Your task to perform on an android device: turn on javascript in the chrome app Image 0: 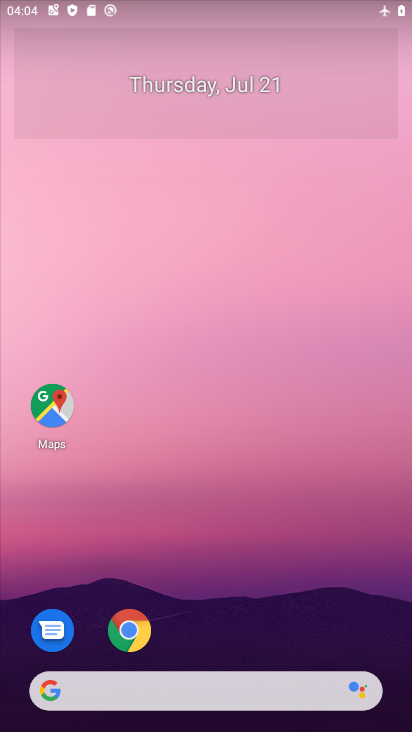
Step 0: click (127, 634)
Your task to perform on an android device: turn on javascript in the chrome app Image 1: 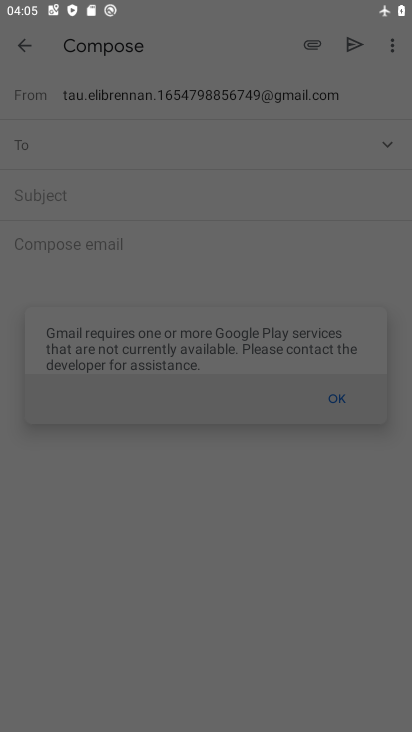
Step 1: press home button
Your task to perform on an android device: turn on javascript in the chrome app Image 2: 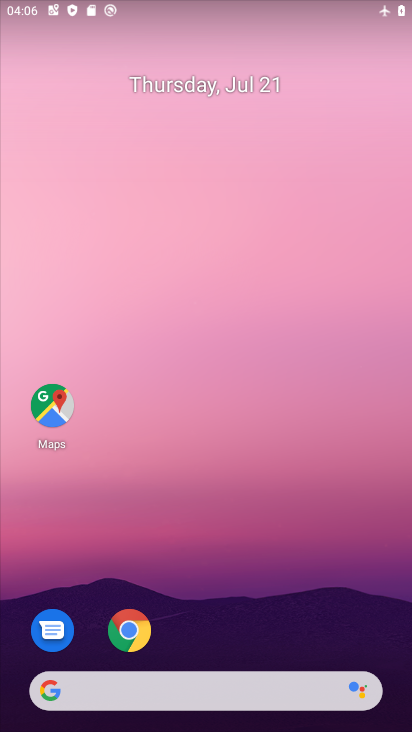
Step 2: click (124, 623)
Your task to perform on an android device: turn on javascript in the chrome app Image 3: 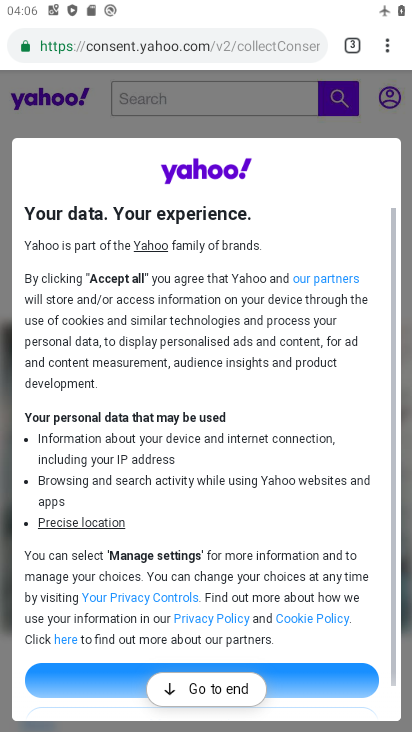
Step 3: click (392, 62)
Your task to perform on an android device: turn on javascript in the chrome app Image 4: 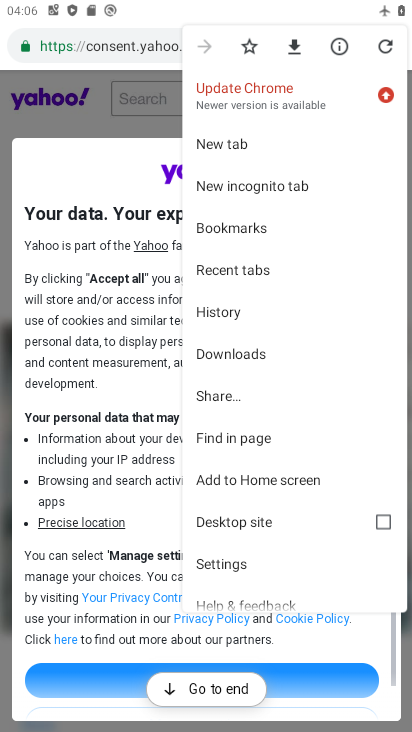
Step 4: click (226, 558)
Your task to perform on an android device: turn on javascript in the chrome app Image 5: 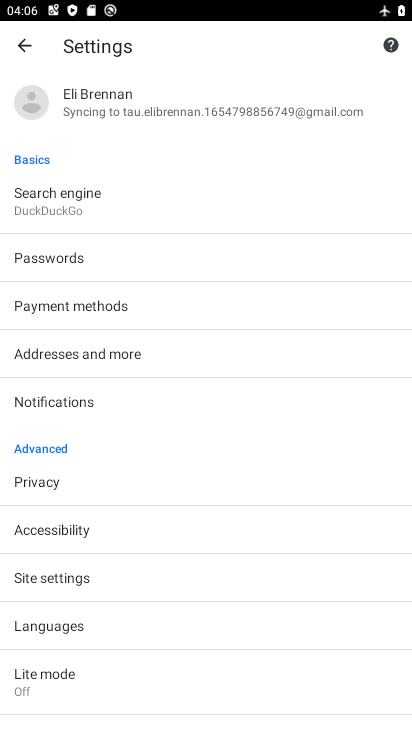
Step 5: click (65, 578)
Your task to perform on an android device: turn on javascript in the chrome app Image 6: 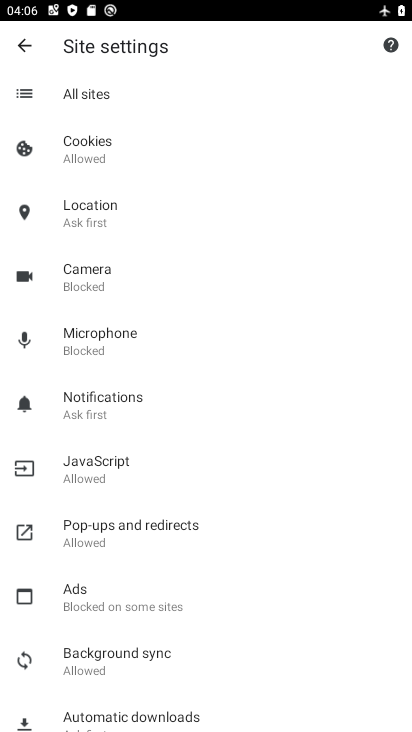
Step 6: click (117, 459)
Your task to perform on an android device: turn on javascript in the chrome app Image 7: 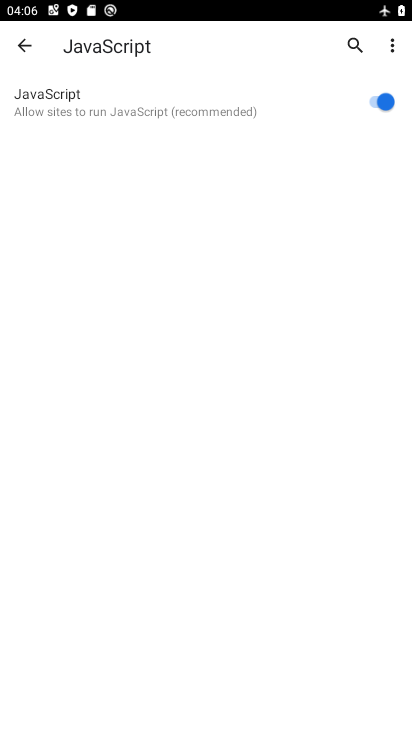
Step 7: task complete